Your task to perform on an android device: Go to Maps Image 0: 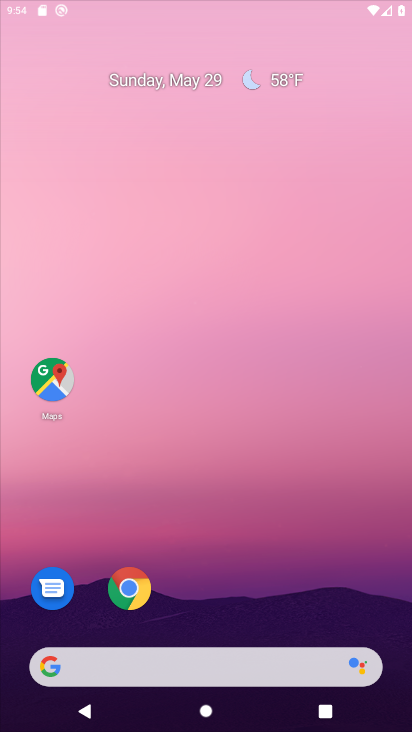
Step 0: drag from (263, 696) to (264, 190)
Your task to perform on an android device: Go to Maps Image 1: 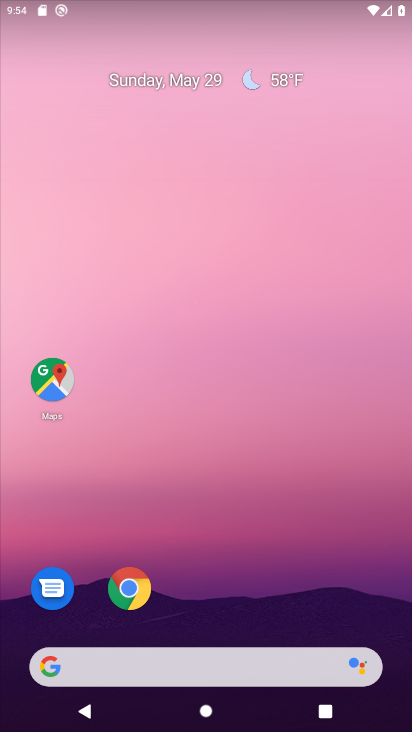
Step 1: drag from (268, 660) to (345, 224)
Your task to perform on an android device: Go to Maps Image 2: 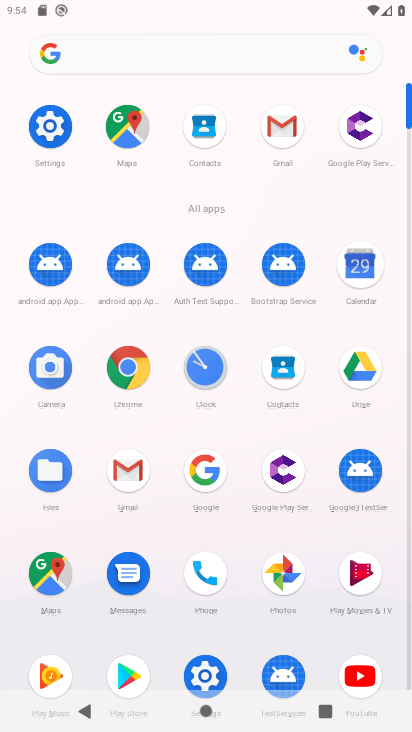
Step 2: click (61, 576)
Your task to perform on an android device: Go to Maps Image 3: 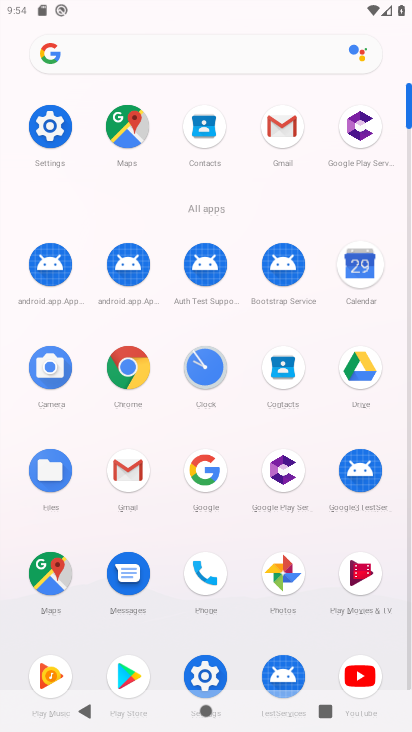
Step 3: click (61, 576)
Your task to perform on an android device: Go to Maps Image 4: 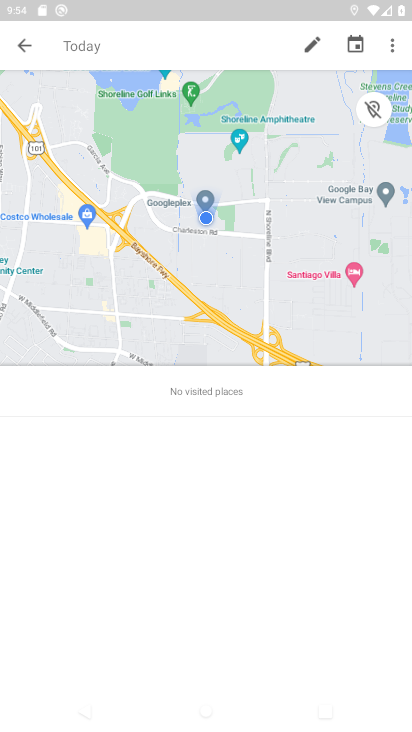
Step 4: task complete